Your task to perform on an android device: check storage Image 0: 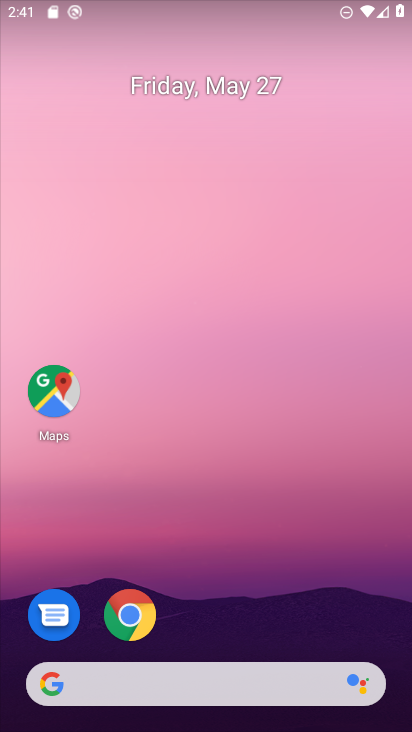
Step 0: drag from (302, 600) to (150, 41)
Your task to perform on an android device: check storage Image 1: 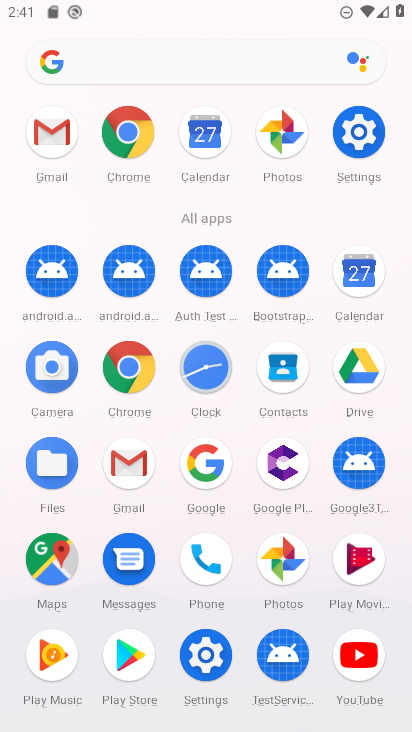
Step 1: click (348, 157)
Your task to perform on an android device: check storage Image 2: 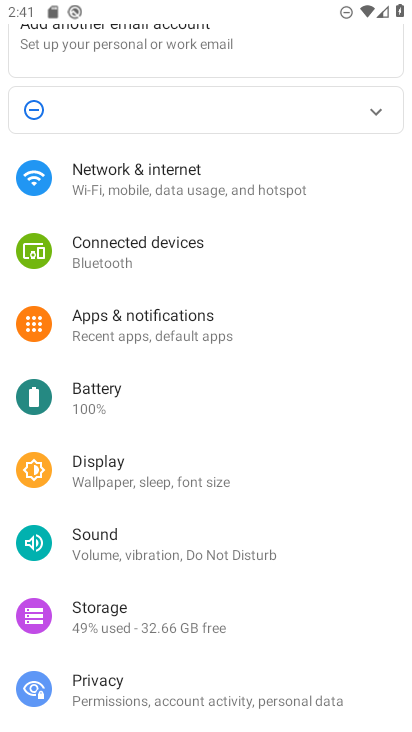
Step 2: click (179, 619)
Your task to perform on an android device: check storage Image 3: 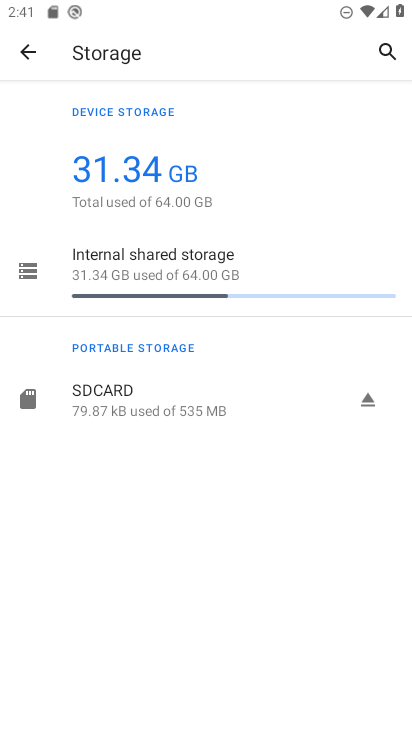
Step 3: task complete